Your task to perform on an android device: Set the phone to "Do not disturb". Image 0: 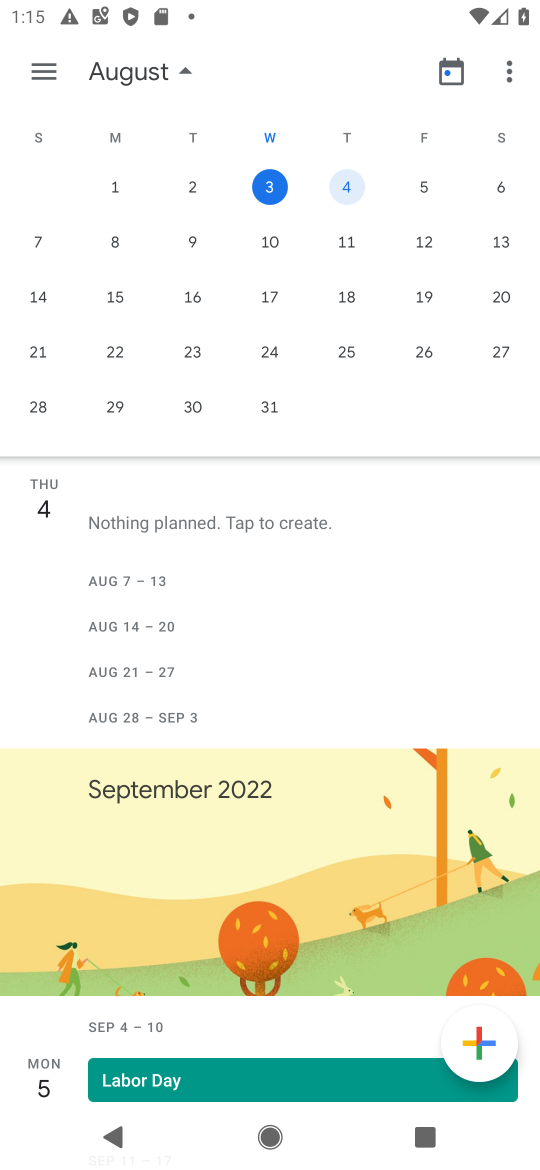
Step 0: press back button
Your task to perform on an android device: Set the phone to "Do not disturb". Image 1: 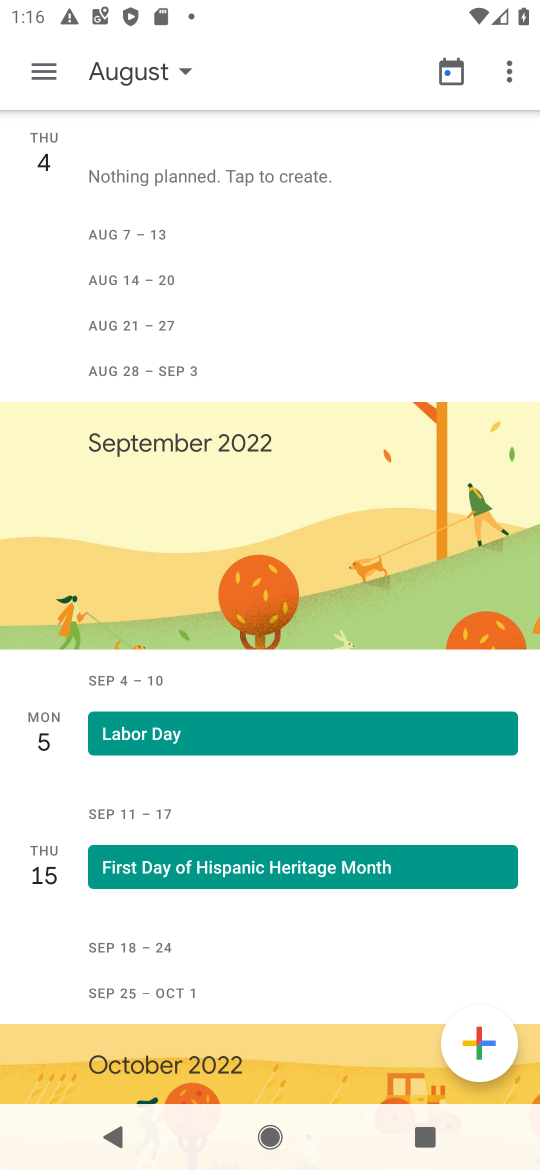
Step 1: drag from (234, 16) to (259, 1053)
Your task to perform on an android device: Set the phone to "Do not disturb". Image 2: 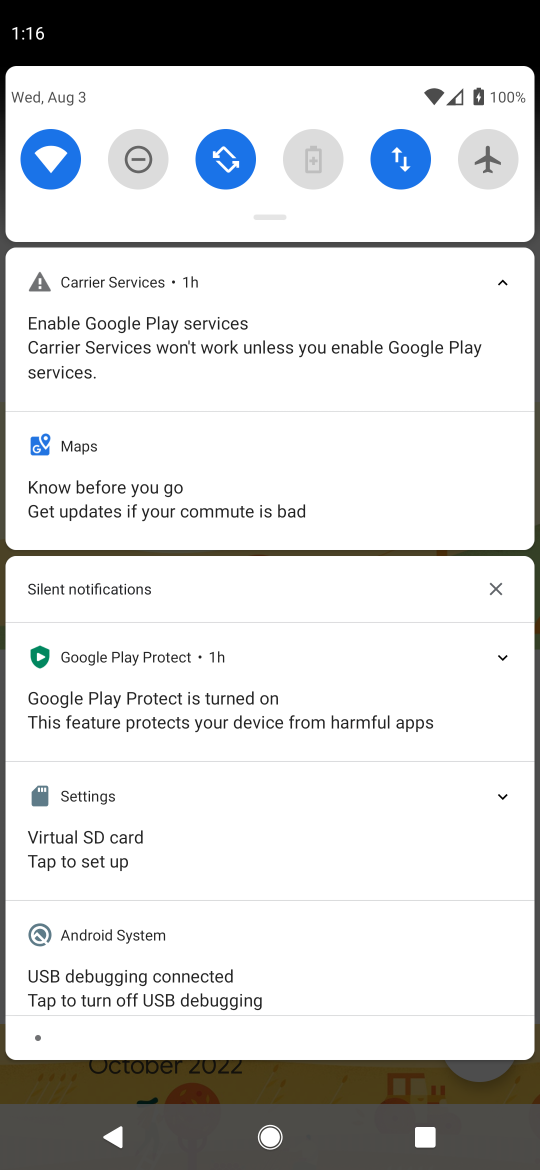
Step 2: click (149, 166)
Your task to perform on an android device: Set the phone to "Do not disturb". Image 3: 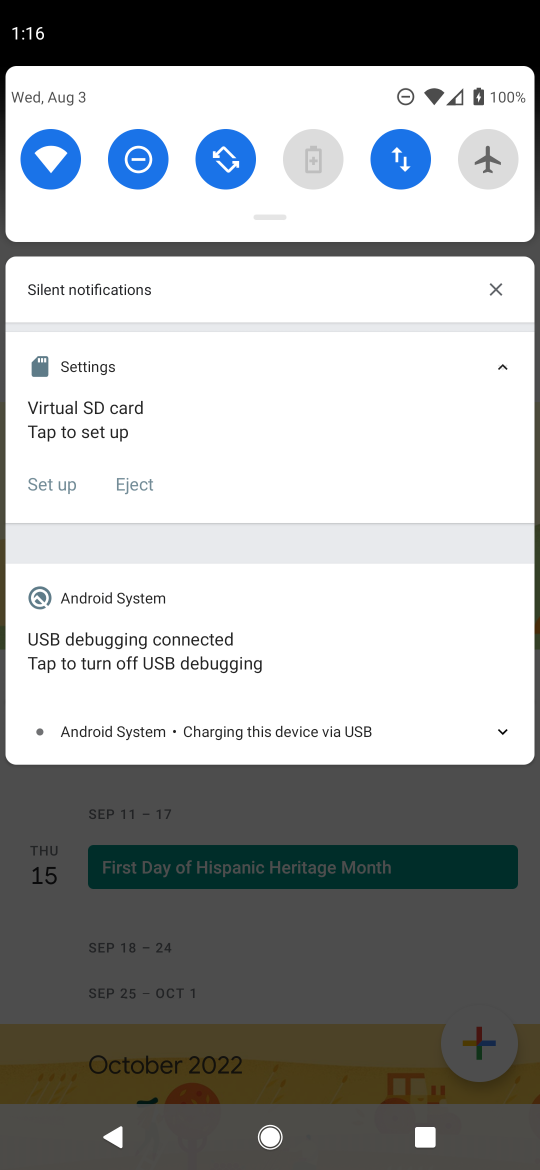
Step 3: task complete